Your task to perform on an android device: turn off improve location accuracy Image 0: 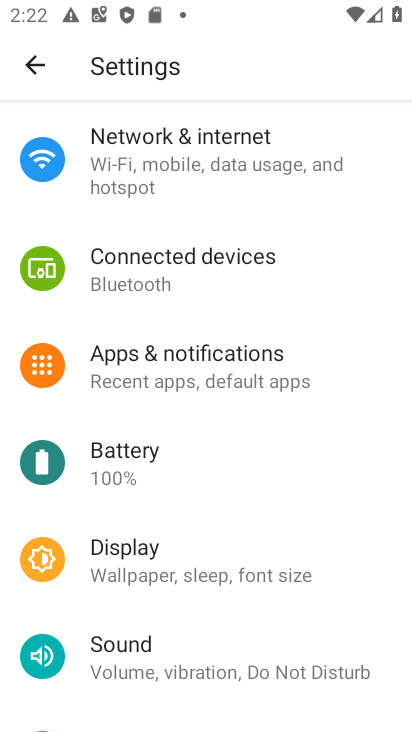
Step 0: press home button
Your task to perform on an android device: turn off improve location accuracy Image 1: 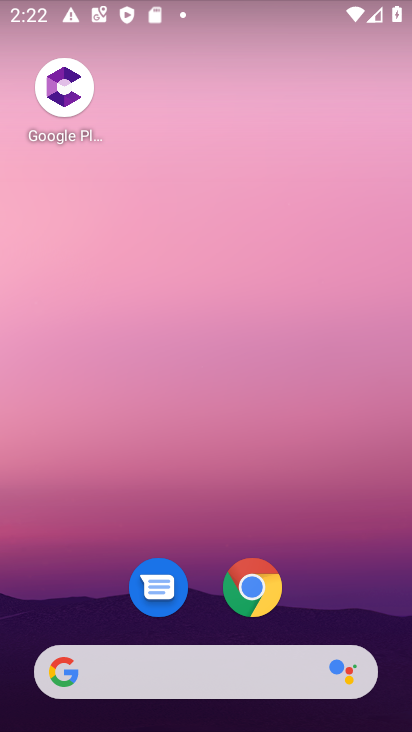
Step 1: drag from (20, 553) to (186, 69)
Your task to perform on an android device: turn off improve location accuracy Image 2: 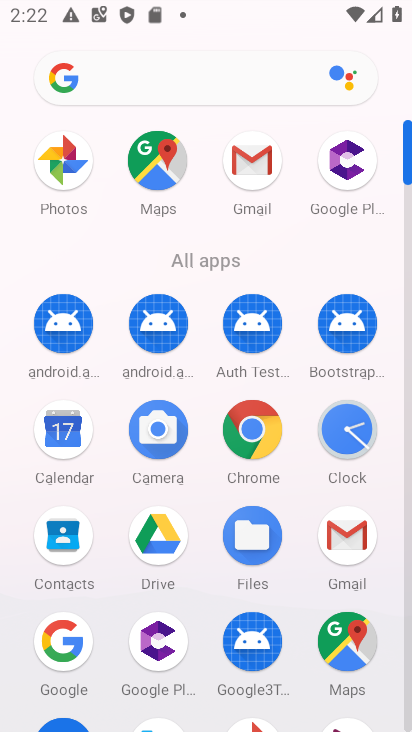
Step 2: drag from (48, 348) to (163, 135)
Your task to perform on an android device: turn off improve location accuracy Image 3: 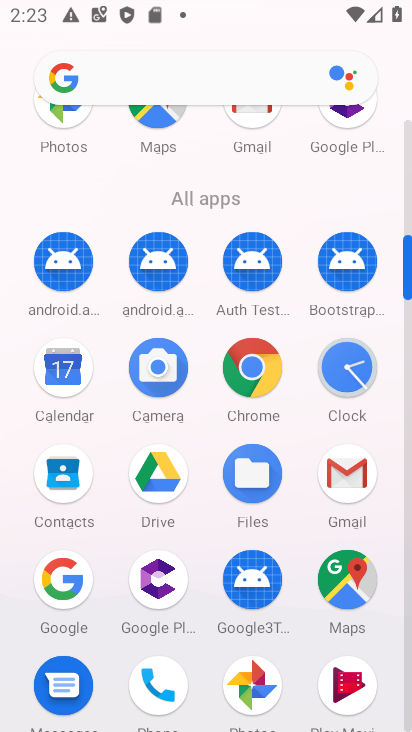
Step 3: drag from (128, 374) to (228, 118)
Your task to perform on an android device: turn off improve location accuracy Image 4: 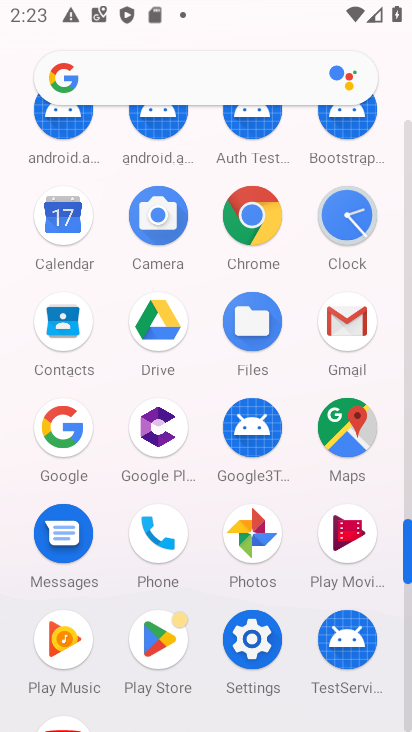
Step 4: click (258, 639)
Your task to perform on an android device: turn off improve location accuracy Image 5: 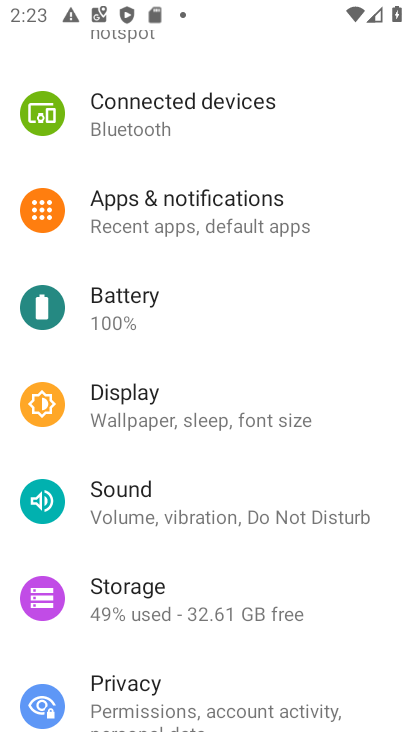
Step 5: drag from (39, 415) to (178, 147)
Your task to perform on an android device: turn off improve location accuracy Image 6: 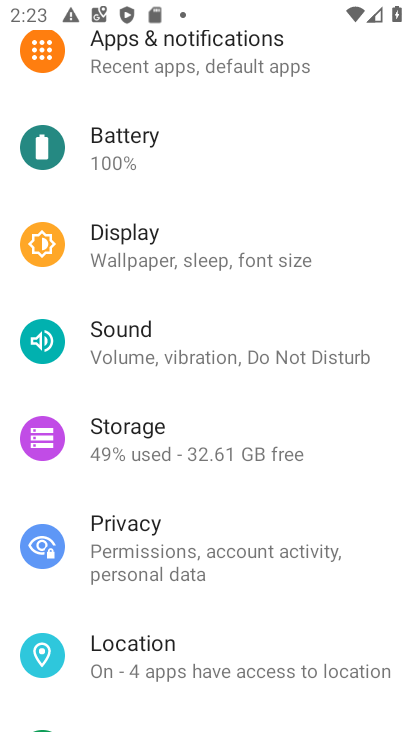
Step 6: click (109, 650)
Your task to perform on an android device: turn off improve location accuracy Image 7: 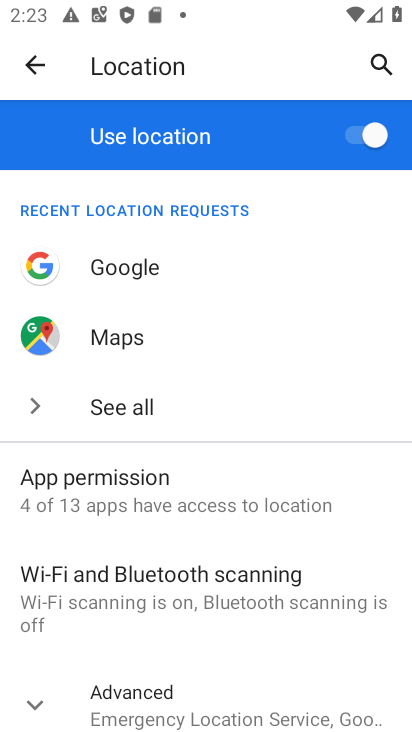
Step 7: drag from (42, 577) to (244, 238)
Your task to perform on an android device: turn off improve location accuracy Image 8: 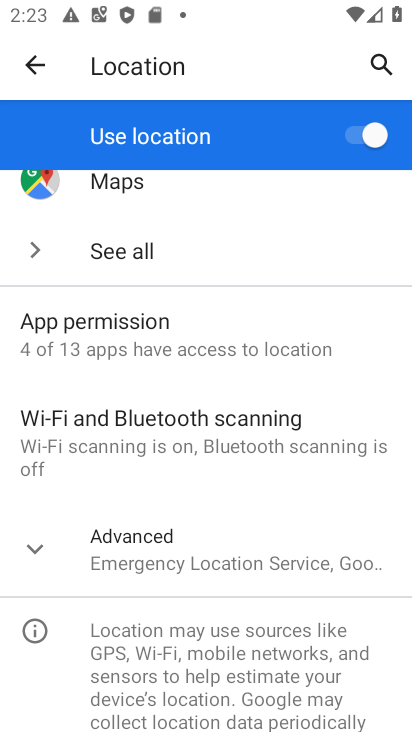
Step 8: click (40, 548)
Your task to perform on an android device: turn off improve location accuracy Image 9: 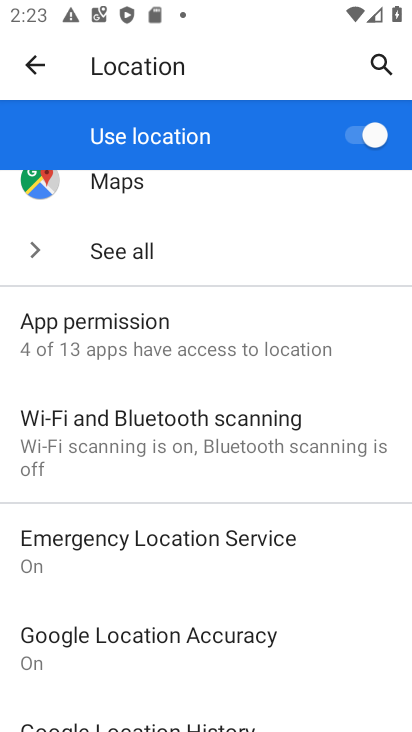
Step 9: click (136, 644)
Your task to perform on an android device: turn off improve location accuracy Image 10: 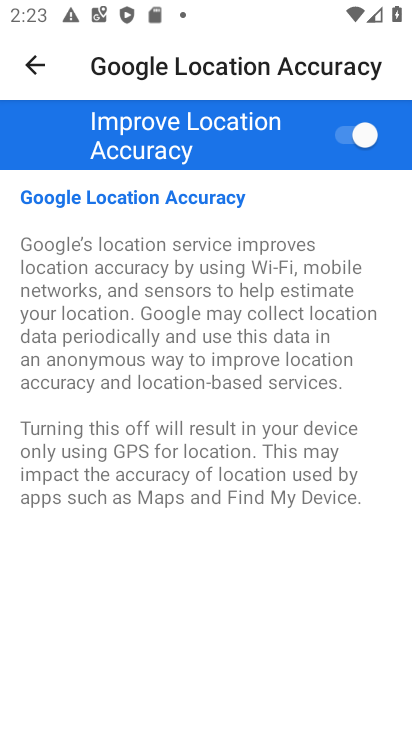
Step 10: click (370, 139)
Your task to perform on an android device: turn off improve location accuracy Image 11: 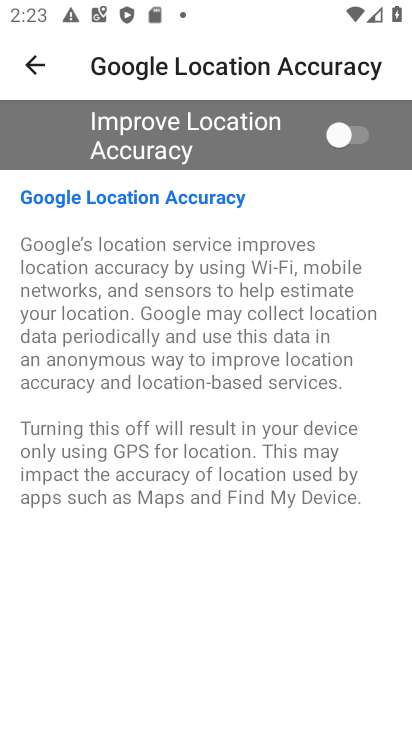
Step 11: task complete